Your task to perform on an android device: Go to settings Image 0: 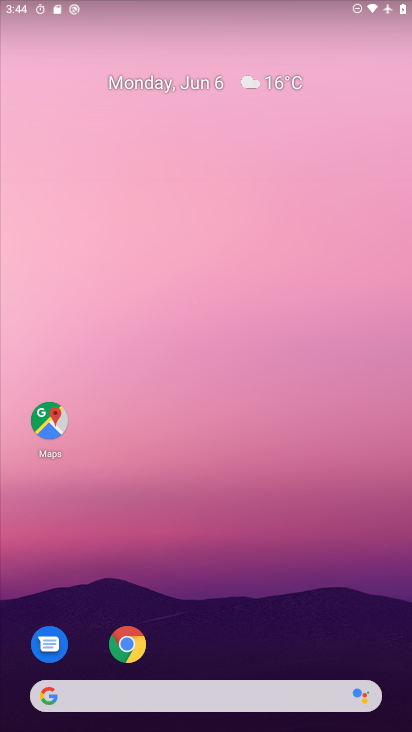
Step 0: press home button
Your task to perform on an android device: Go to settings Image 1: 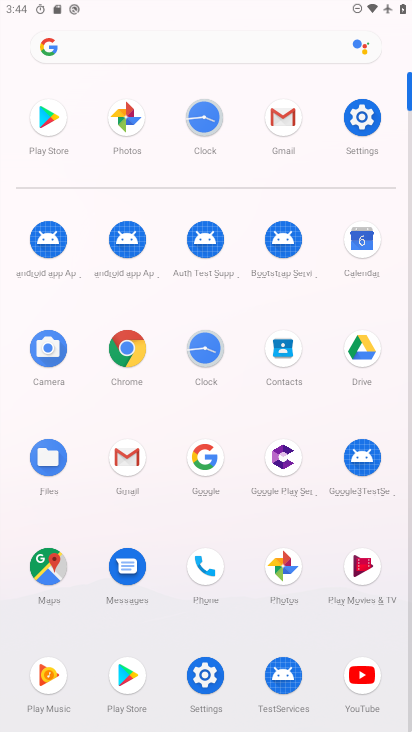
Step 1: drag from (248, 579) to (210, 101)
Your task to perform on an android device: Go to settings Image 2: 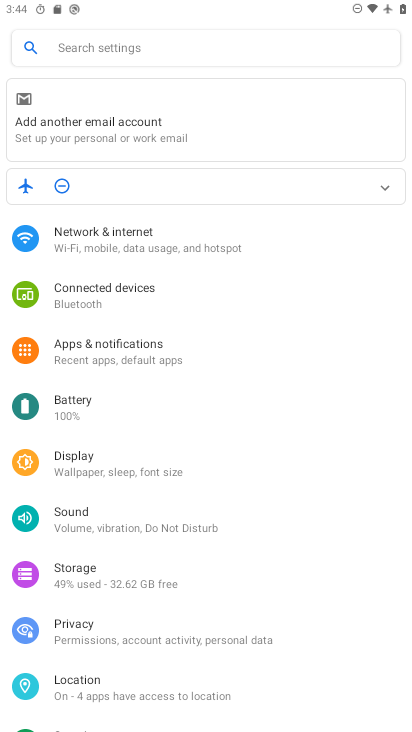
Step 2: click (362, 119)
Your task to perform on an android device: Go to settings Image 3: 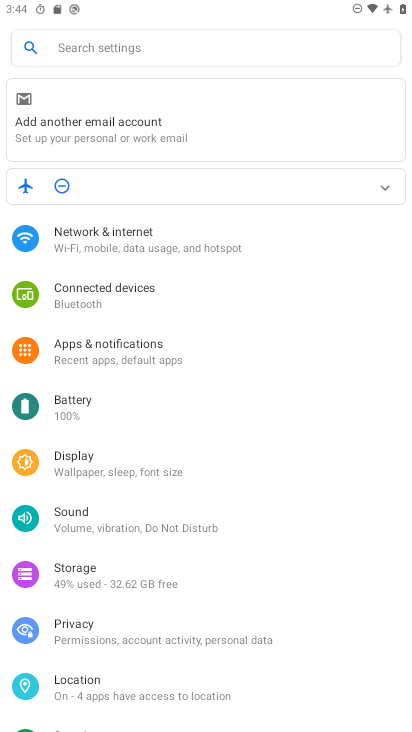
Step 3: task complete